Your task to perform on an android device: clear history in the chrome app Image 0: 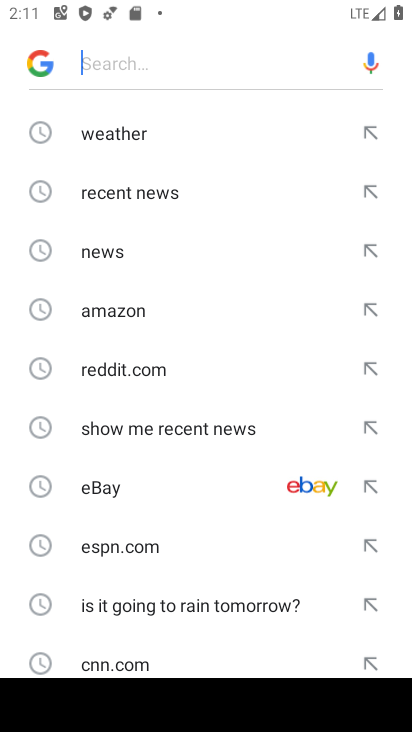
Step 0: press back button
Your task to perform on an android device: clear history in the chrome app Image 1: 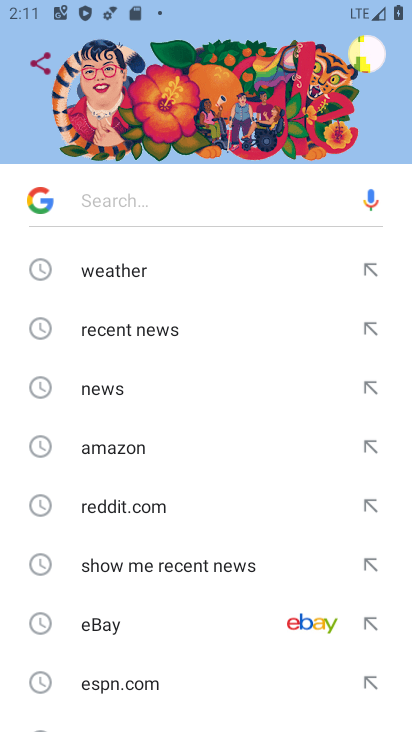
Step 1: press back button
Your task to perform on an android device: clear history in the chrome app Image 2: 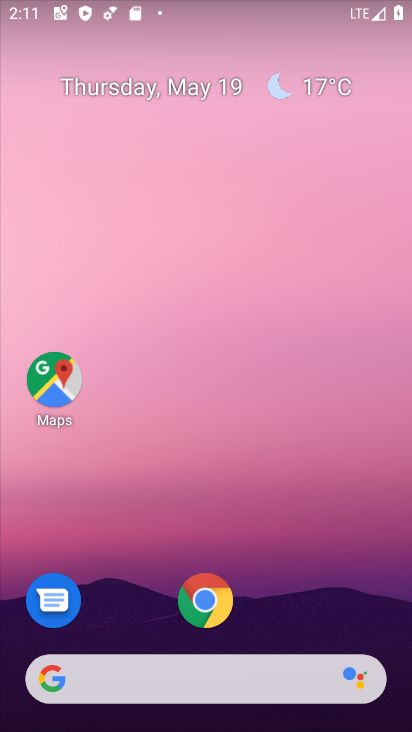
Step 2: click (205, 608)
Your task to perform on an android device: clear history in the chrome app Image 3: 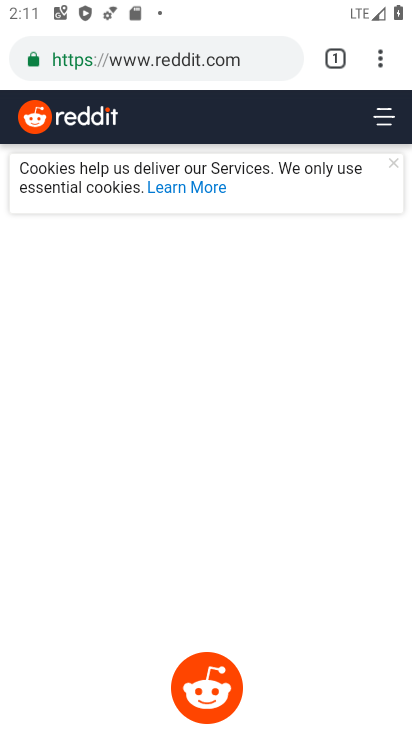
Step 3: click (389, 67)
Your task to perform on an android device: clear history in the chrome app Image 4: 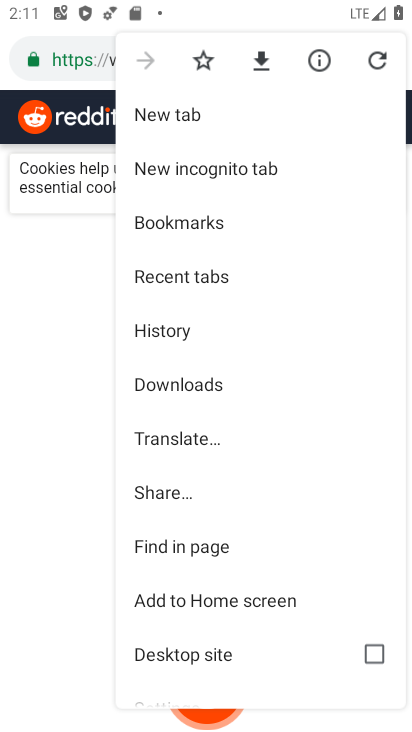
Step 4: click (204, 321)
Your task to perform on an android device: clear history in the chrome app Image 5: 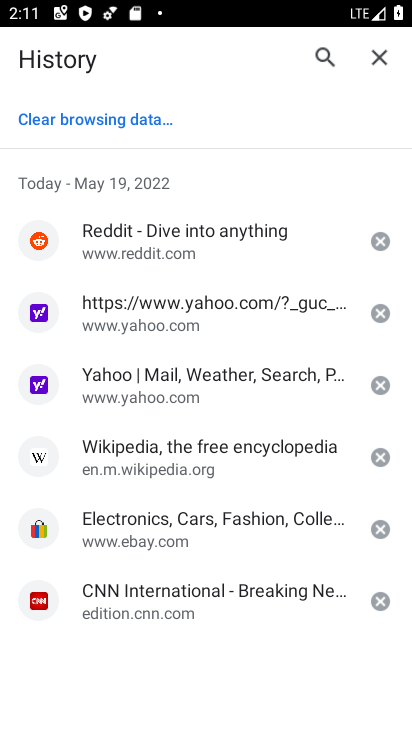
Step 5: click (59, 118)
Your task to perform on an android device: clear history in the chrome app Image 6: 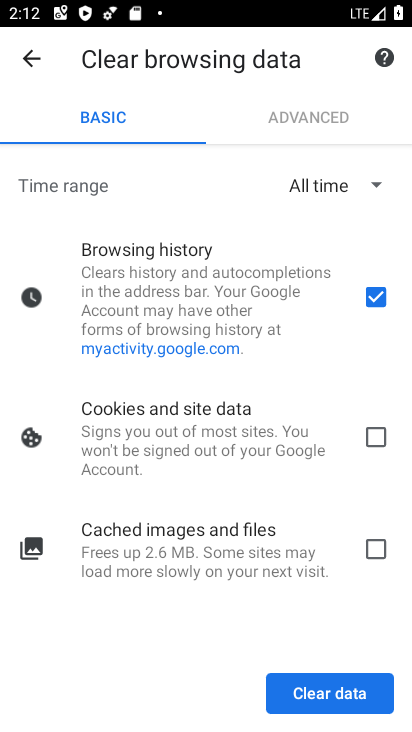
Step 6: click (330, 686)
Your task to perform on an android device: clear history in the chrome app Image 7: 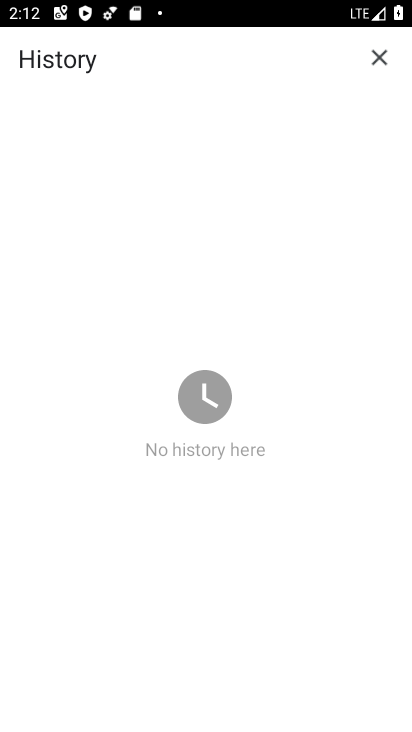
Step 7: task complete